Your task to perform on an android device: delete the emails in spam in the gmail app Image 0: 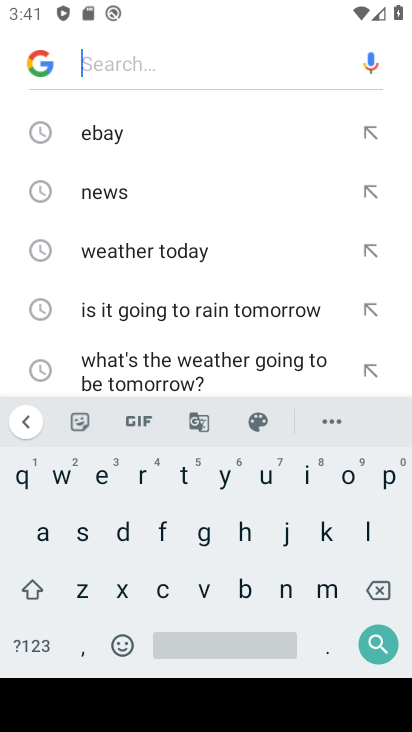
Step 0: press home button
Your task to perform on an android device: delete the emails in spam in the gmail app Image 1: 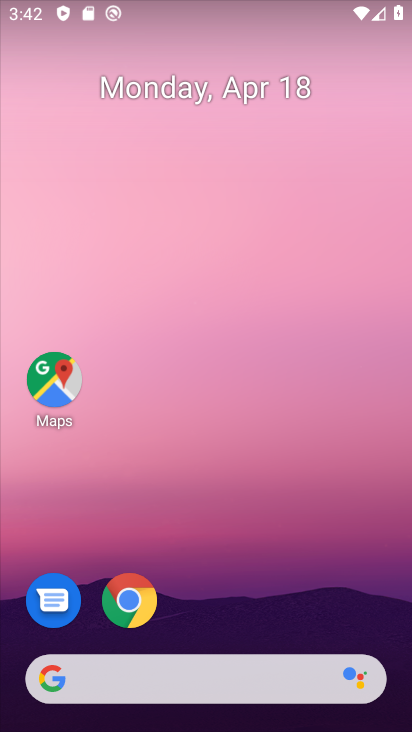
Step 1: drag from (277, 717) to (289, 175)
Your task to perform on an android device: delete the emails in spam in the gmail app Image 2: 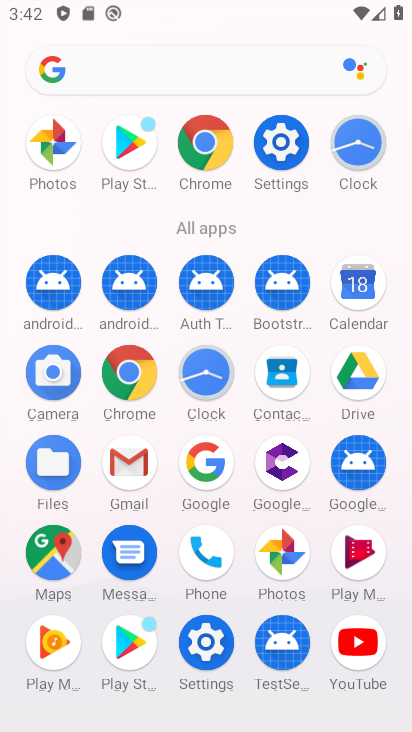
Step 2: click (134, 462)
Your task to perform on an android device: delete the emails in spam in the gmail app Image 3: 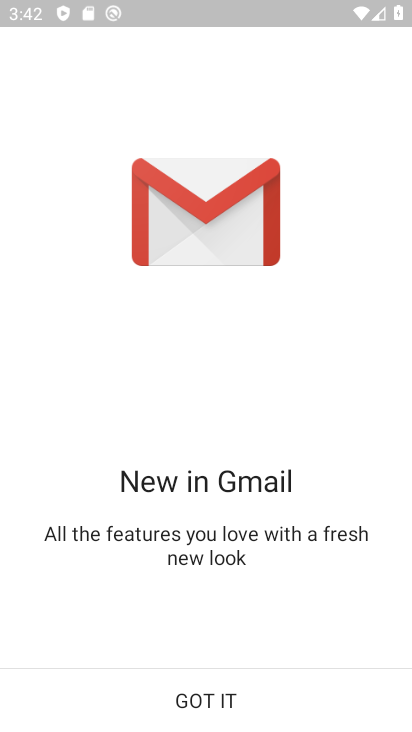
Step 3: click (202, 687)
Your task to perform on an android device: delete the emails in spam in the gmail app Image 4: 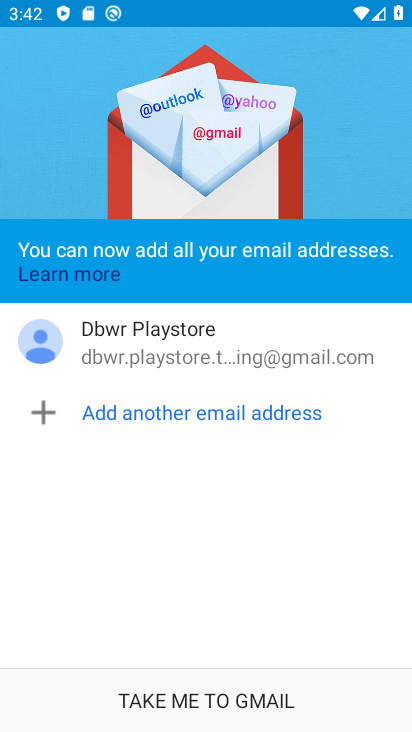
Step 4: drag from (373, 526) to (306, 23)
Your task to perform on an android device: delete the emails in spam in the gmail app Image 5: 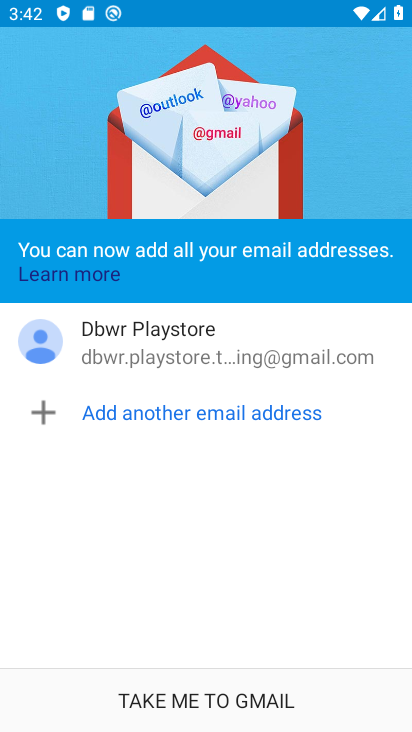
Step 5: click (159, 684)
Your task to perform on an android device: delete the emails in spam in the gmail app Image 6: 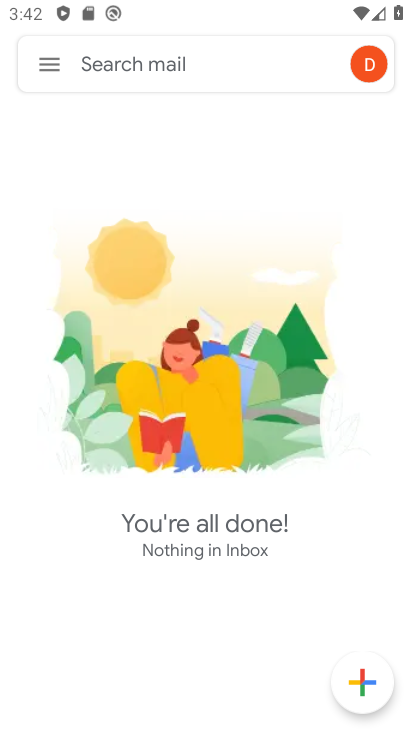
Step 6: click (51, 78)
Your task to perform on an android device: delete the emails in spam in the gmail app Image 7: 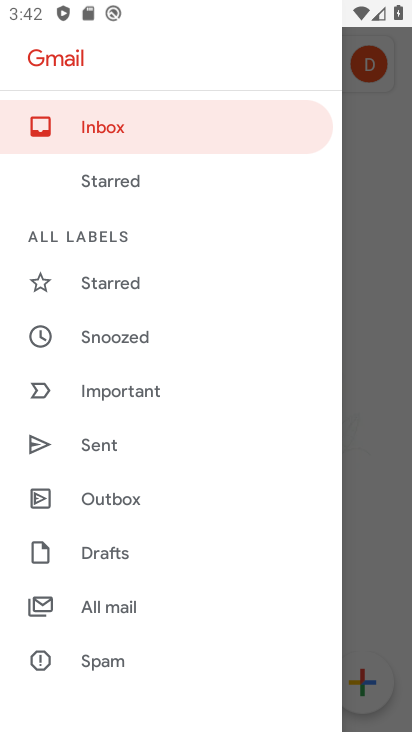
Step 7: click (109, 660)
Your task to perform on an android device: delete the emails in spam in the gmail app Image 8: 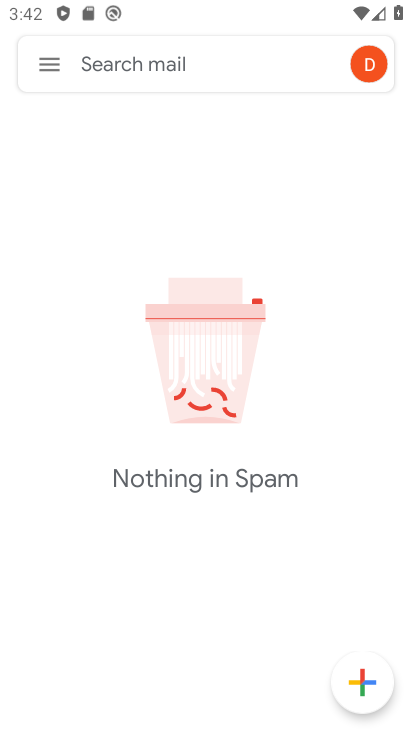
Step 8: task complete